Your task to perform on an android device: Go to calendar. Show me events next week Image 0: 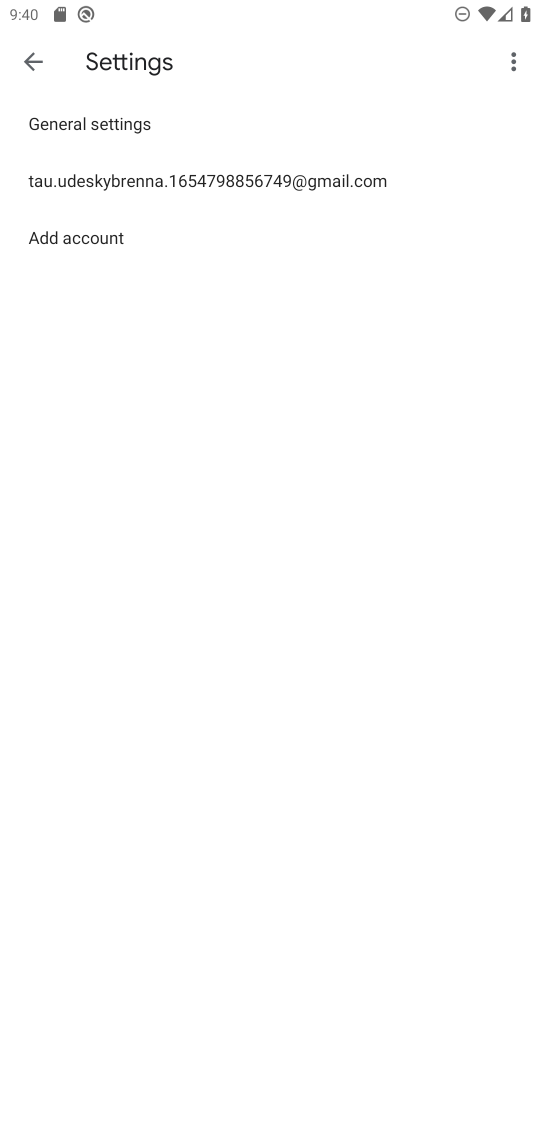
Step 0: press home button
Your task to perform on an android device: Go to calendar. Show me events next week Image 1: 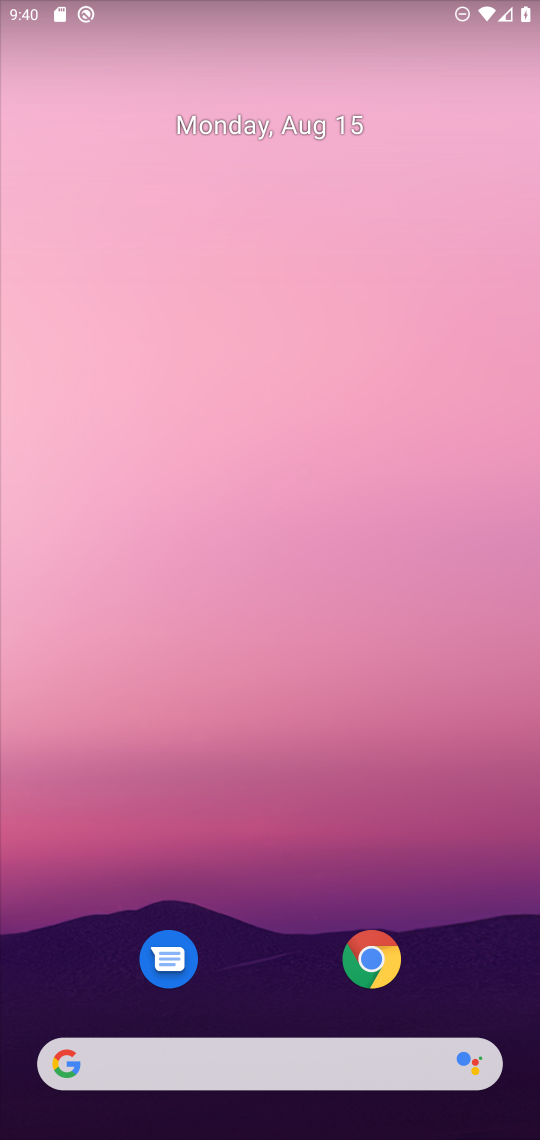
Step 1: drag from (196, 1007) to (146, 5)
Your task to perform on an android device: Go to calendar. Show me events next week Image 2: 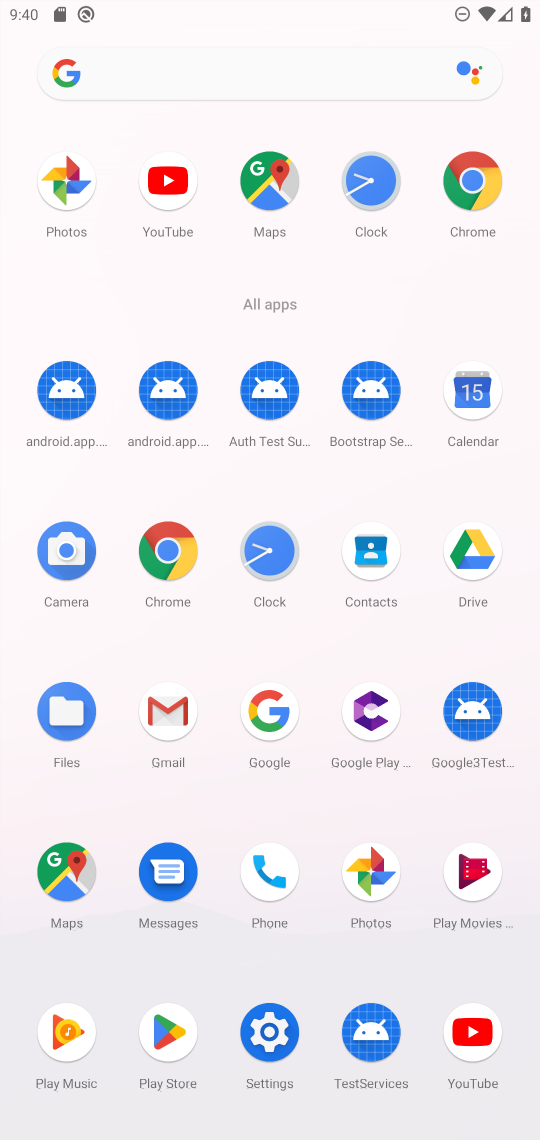
Step 2: click (480, 403)
Your task to perform on an android device: Go to calendar. Show me events next week Image 3: 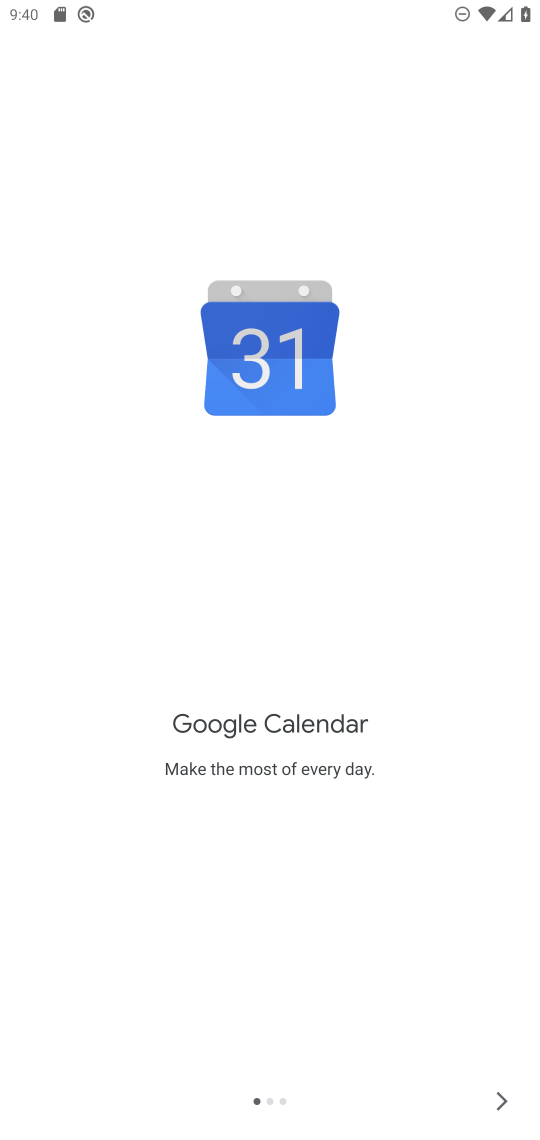
Step 3: click (499, 1096)
Your task to perform on an android device: Go to calendar. Show me events next week Image 4: 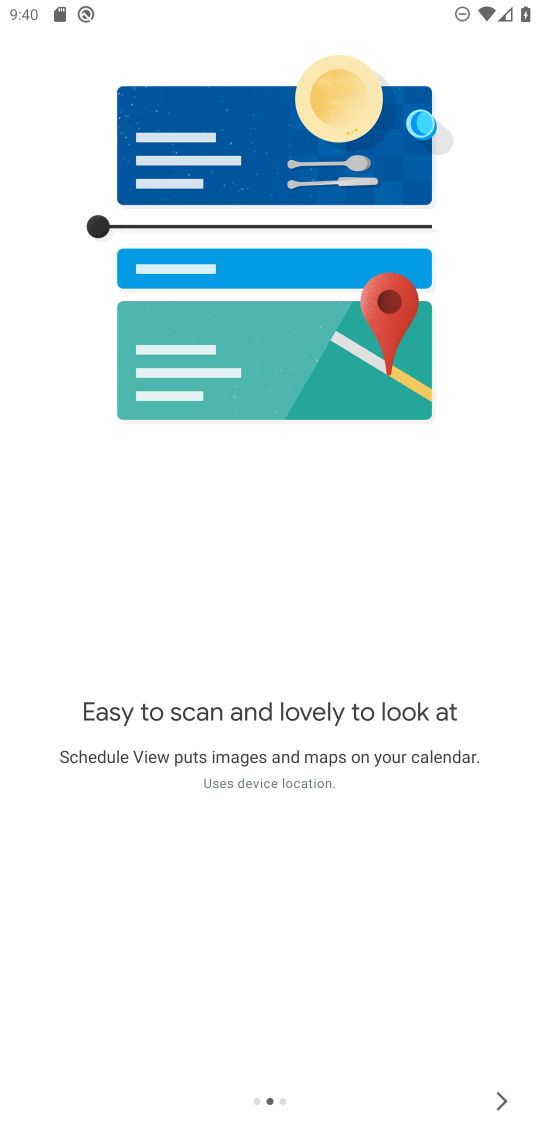
Step 4: click (499, 1096)
Your task to perform on an android device: Go to calendar. Show me events next week Image 5: 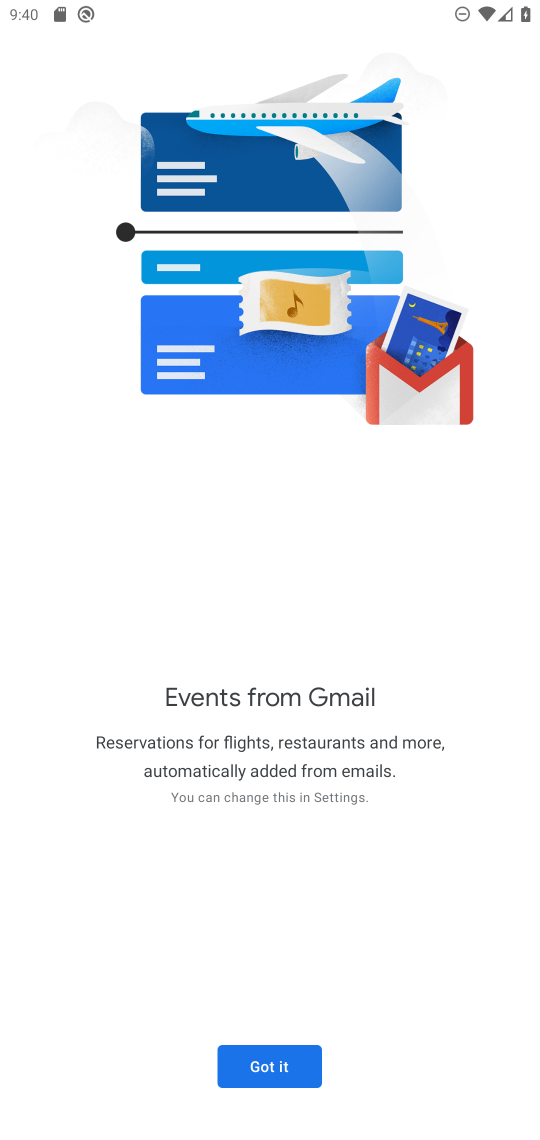
Step 5: click (302, 1063)
Your task to perform on an android device: Go to calendar. Show me events next week Image 6: 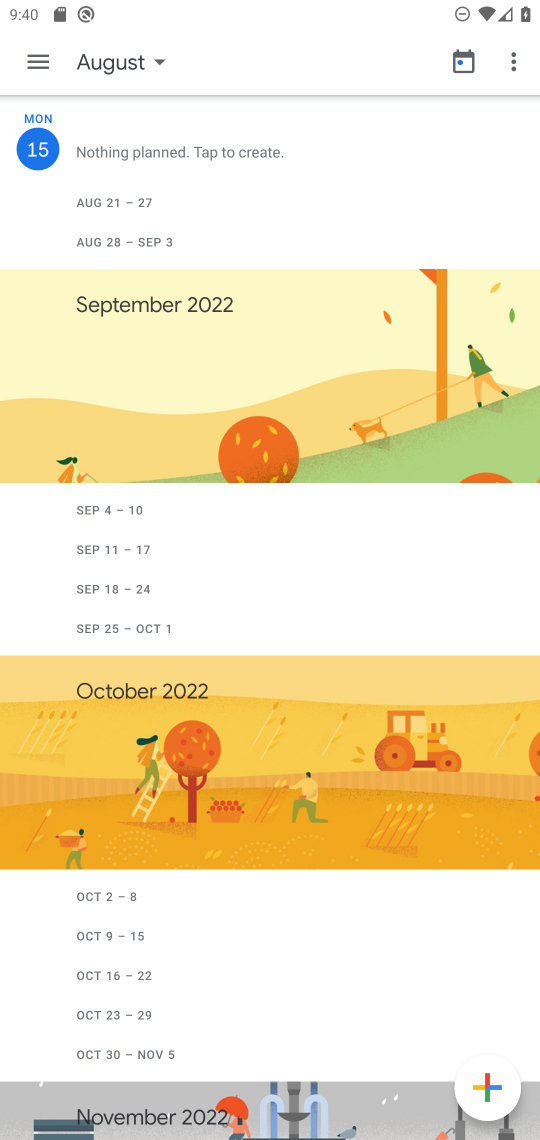
Step 6: click (35, 63)
Your task to perform on an android device: Go to calendar. Show me events next week Image 7: 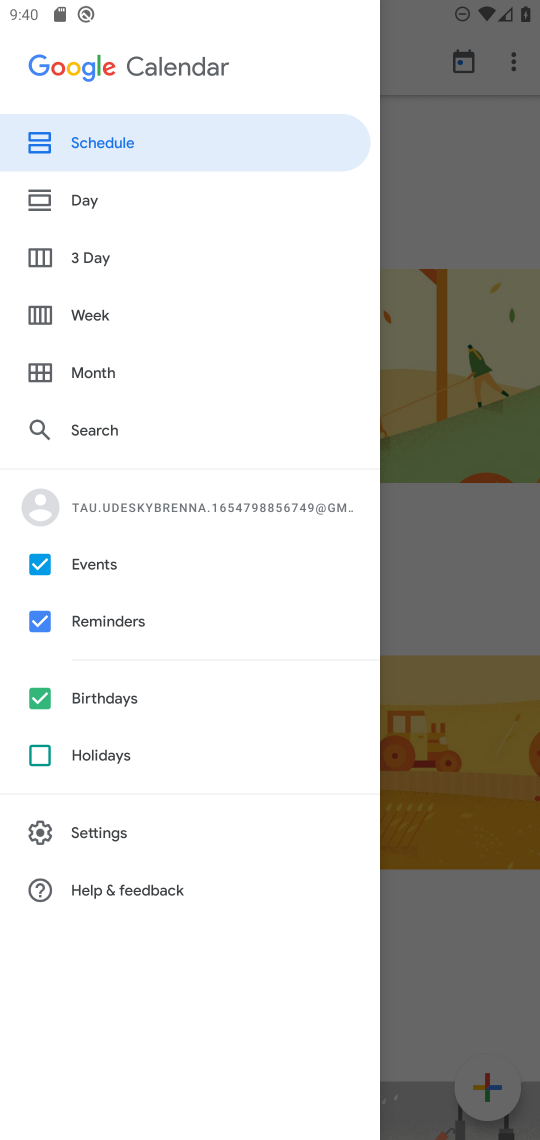
Step 7: click (84, 312)
Your task to perform on an android device: Go to calendar. Show me events next week Image 8: 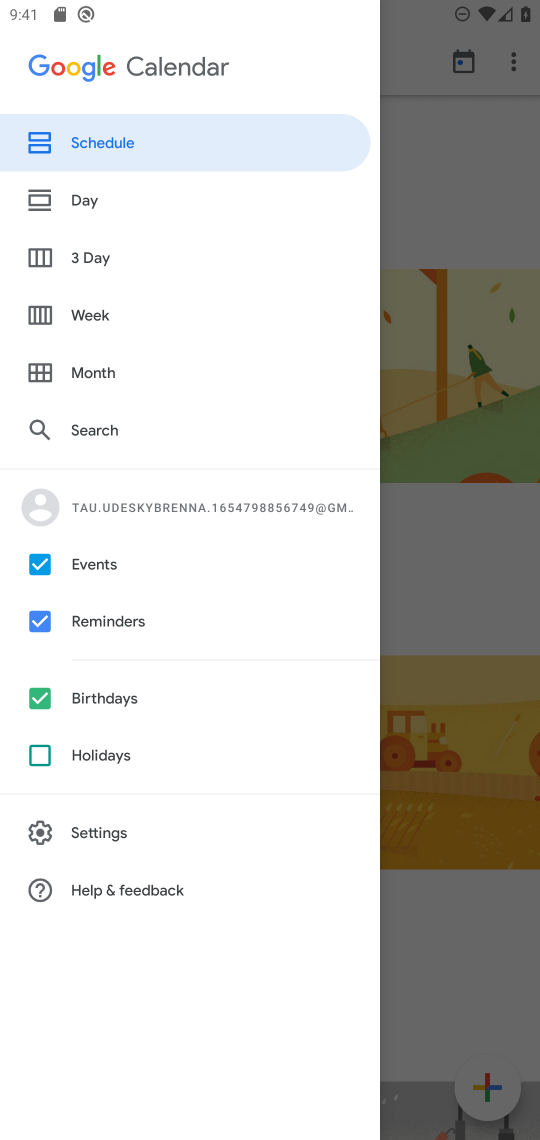
Step 8: click (69, 337)
Your task to perform on an android device: Go to calendar. Show me events next week Image 9: 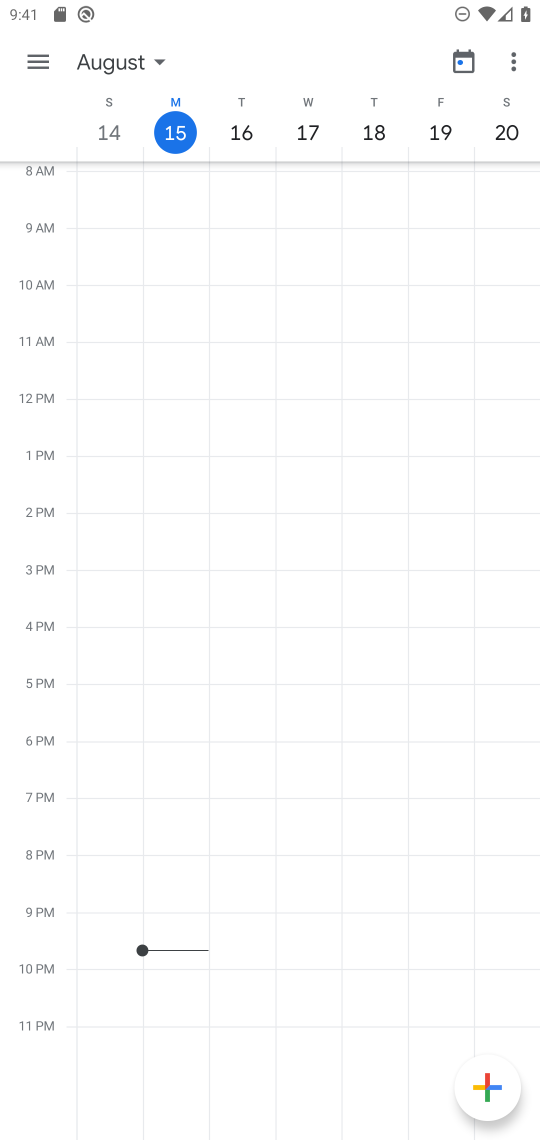
Step 9: task complete